Your task to perform on an android device: Go to Yahoo.com Image 0: 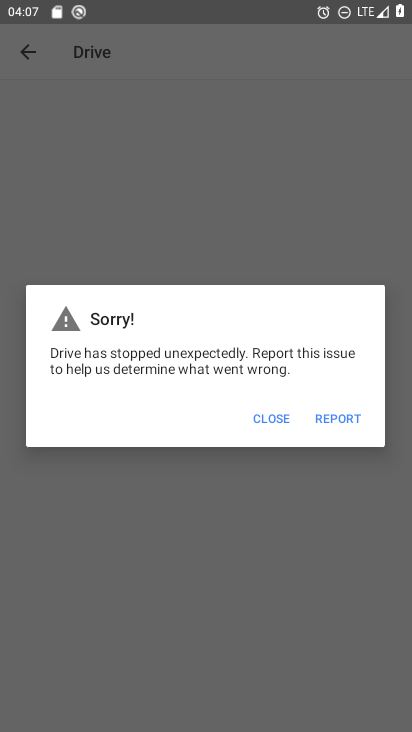
Step 0: press home button
Your task to perform on an android device: Go to Yahoo.com Image 1: 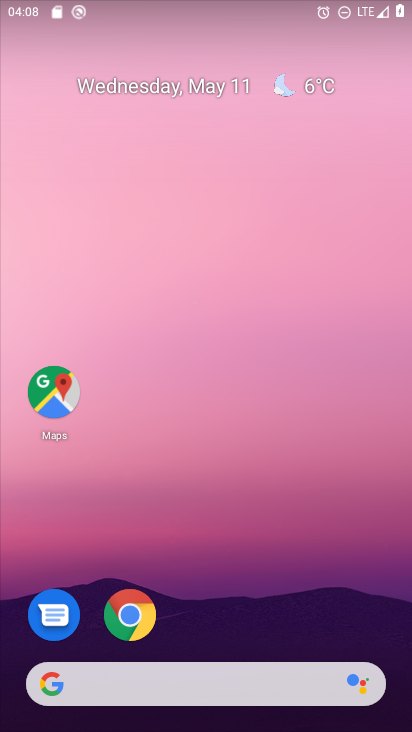
Step 1: click (130, 617)
Your task to perform on an android device: Go to Yahoo.com Image 2: 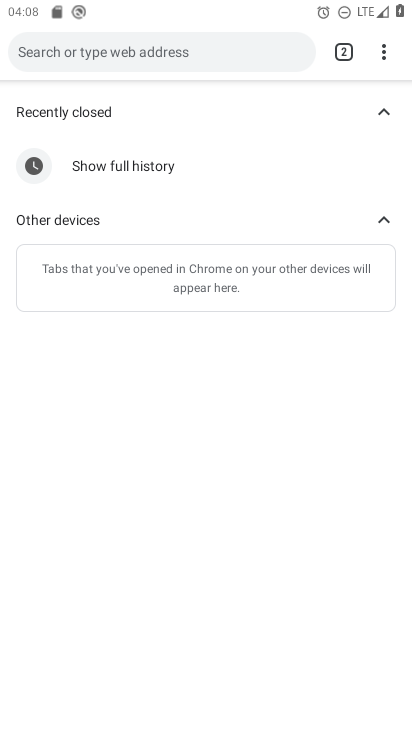
Step 2: click (198, 30)
Your task to perform on an android device: Go to Yahoo.com Image 3: 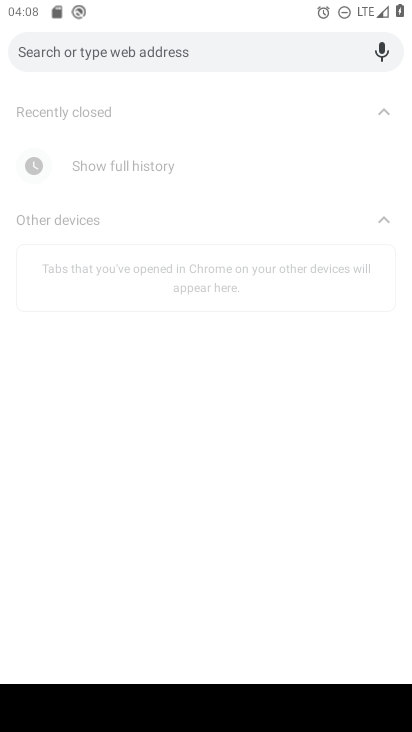
Step 3: type "yahoo.com"
Your task to perform on an android device: Go to Yahoo.com Image 4: 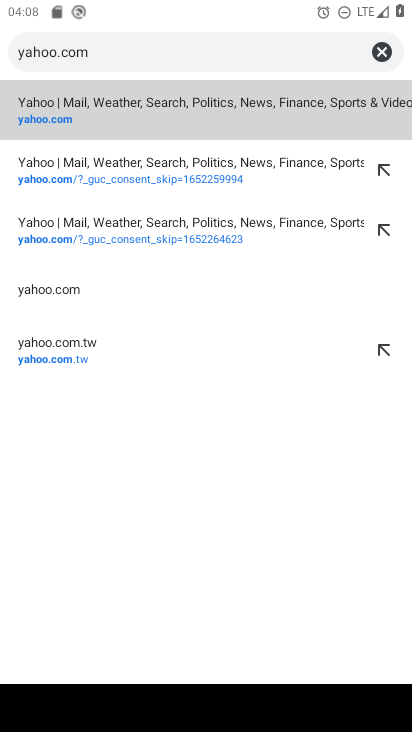
Step 4: click (56, 117)
Your task to perform on an android device: Go to Yahoo.com Image 5: 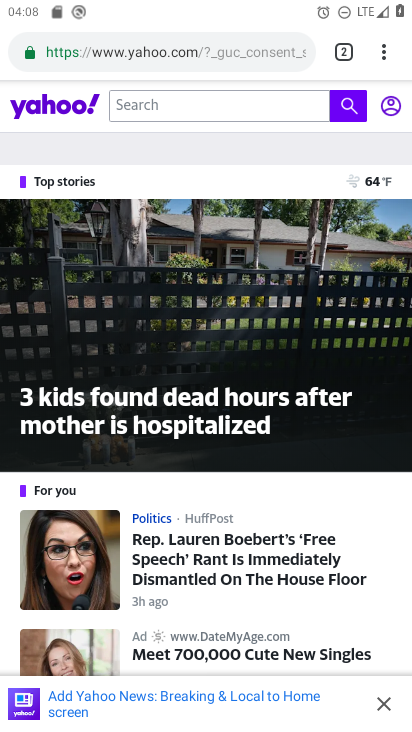
Step 5: task complete